Your task to perform on an android device: Open Google Maps Image 0: 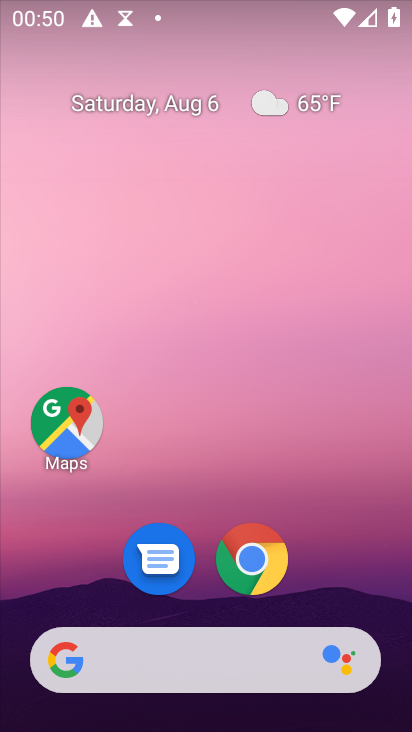
Step 0: click (61, 431)
Your task to perform on an android device: Open Google Maps Image 1: 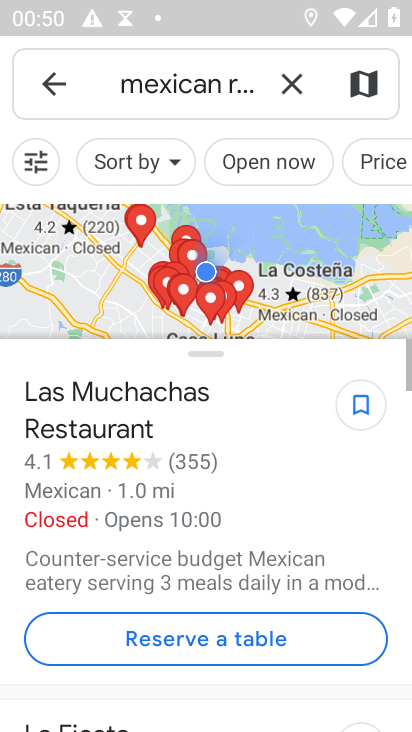
Step 1: task complete